Your task to perform on an android device: Show me popular games on the Play Store Image 0: 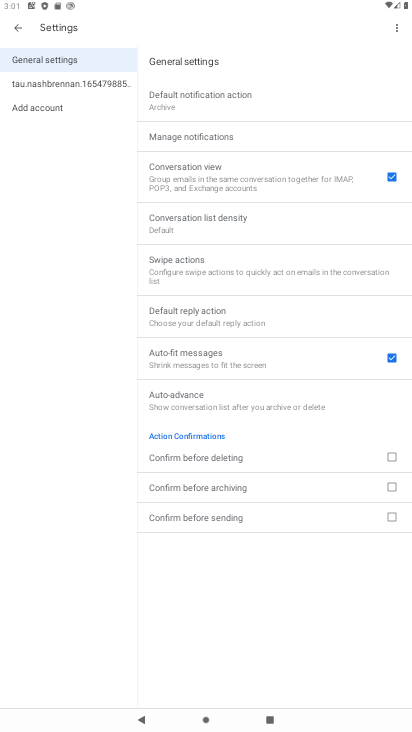
Step 0: press home button
Your task to perform on an android device: Show me popular games on the Play Store Image 1: 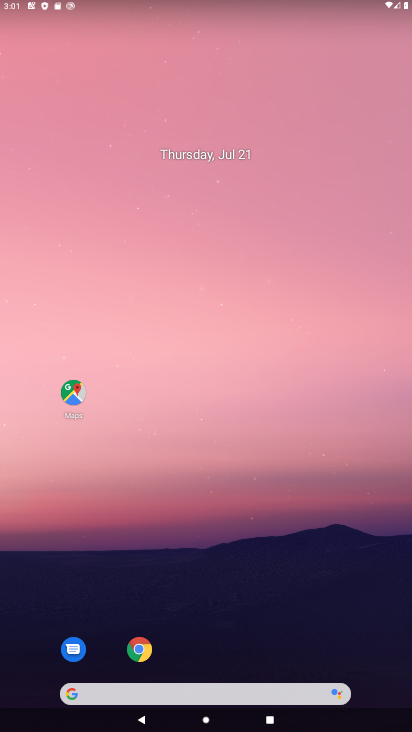
Step 1: drag from (203, 658) to (277, 131)
Your task to perform on an android device: Show me popular games on the Play Store Image 2: 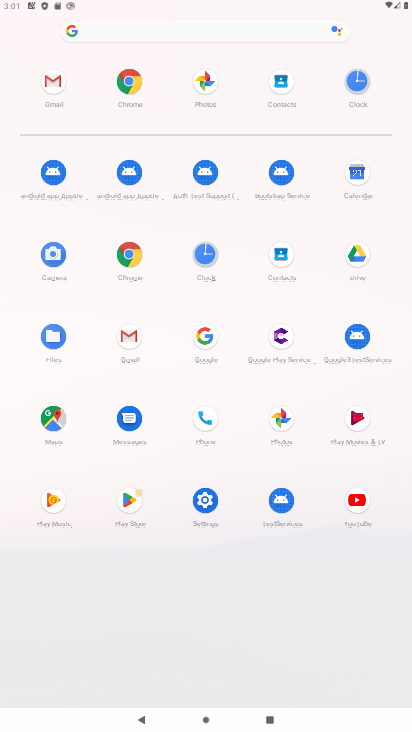
Step 2: click (141, 510)
Your task to perform on an android device: Show me popular games on the Play Store Image 3: 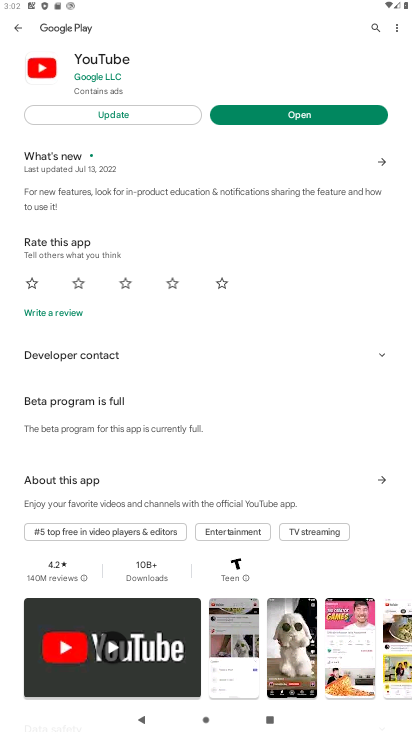
Step 3: click (108, 111)
Your task to perform on an android device: Show me popular games on the Play Store Image 4: 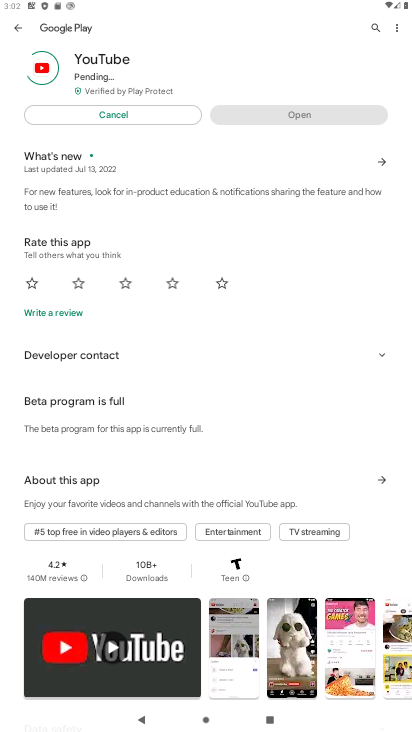
Step 4: click (7, 30)
Your task to perform on an android device: Show me popular games on the Play Store Image 5: 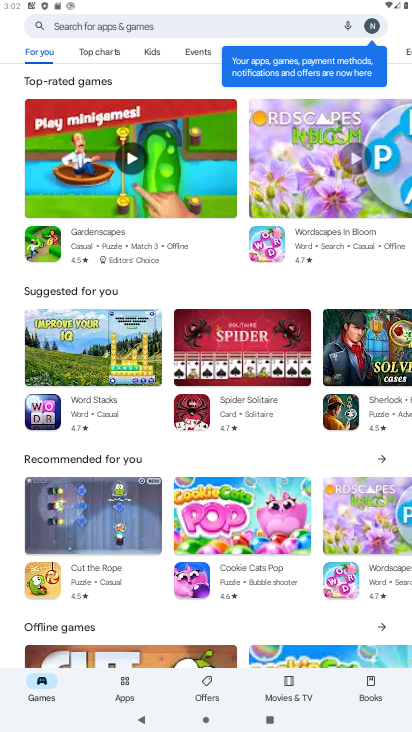
Step 5: click (69, 47)
Your task to perform on an android device: Show me popular games on the Play Store Image 6: 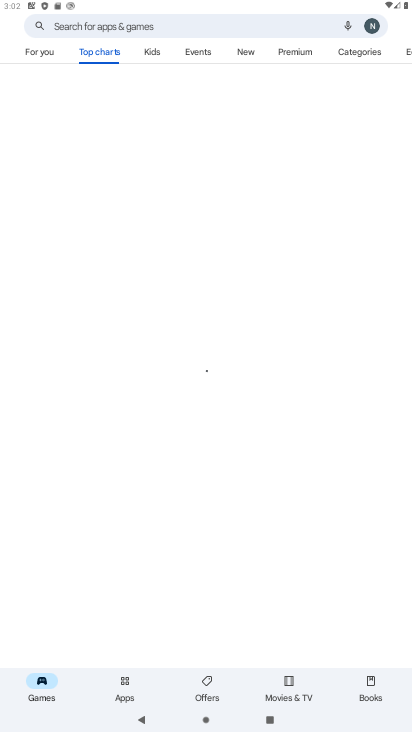
Step 6: task complete